Your task to perform on an android device: Turn on the flashlight Image 0: 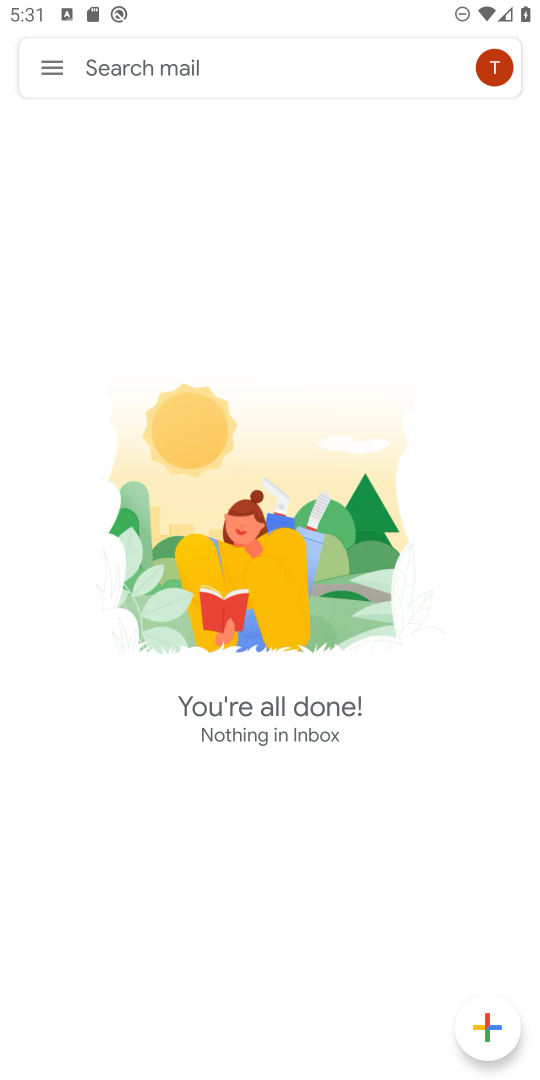
Step 0: drag from (329, 956) to (513, 1071)
Your task to perform on an android device: Turn on the flashlight Image 1: 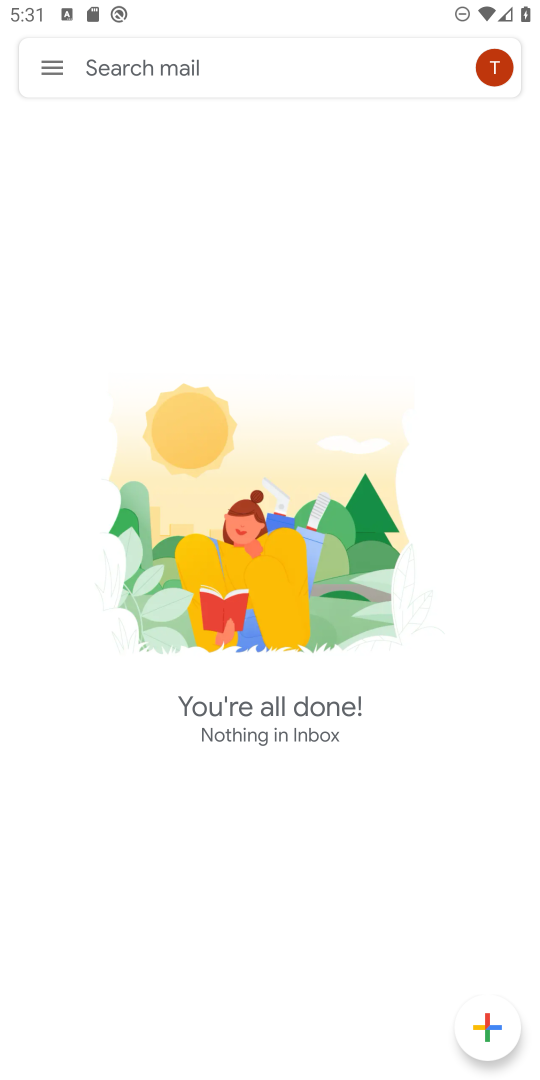
Step 1: task complete